Your task to perform on an android device: Search for pizza restaurants on Maps Image 0: 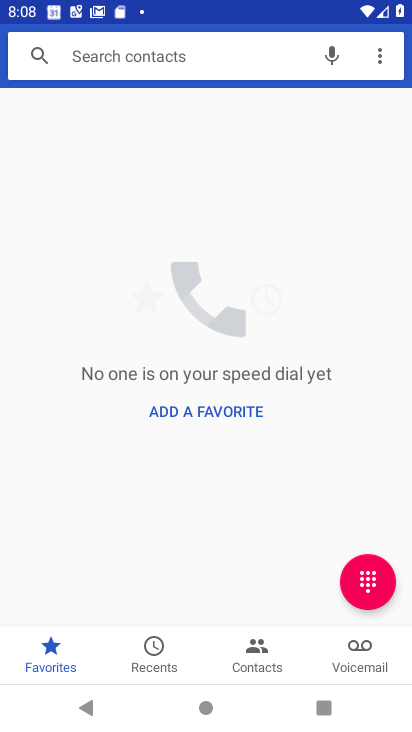
Step 0: drag from (205, 625) to (314, 18)
Your task to perform on an android device: Search for pizza restaurants on Maps Image 1: 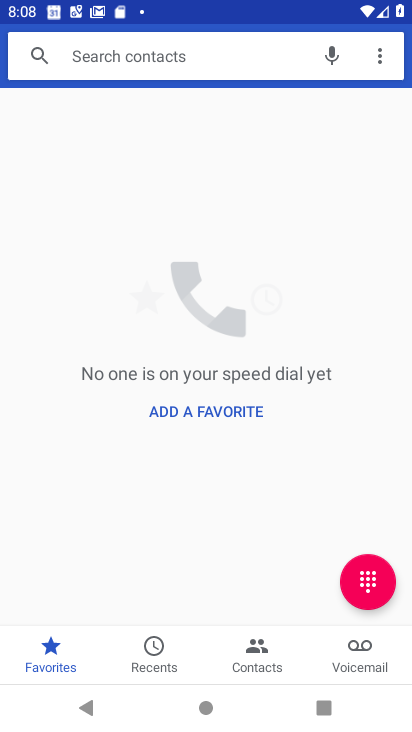
Step 1: press home button
Your task to perform on an android device: Search for pizza restaurants on Maps Image 2: 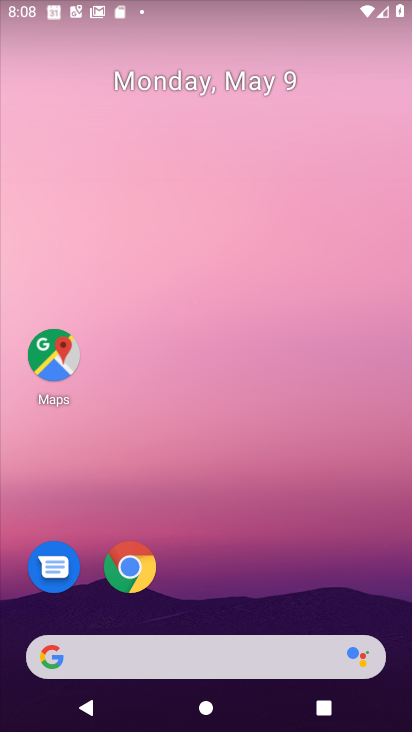
Step 2: drag from (226, 512) to (273, 167)
Your task to perform on an android device: Search for pizza restaurants on Maps Image 3: 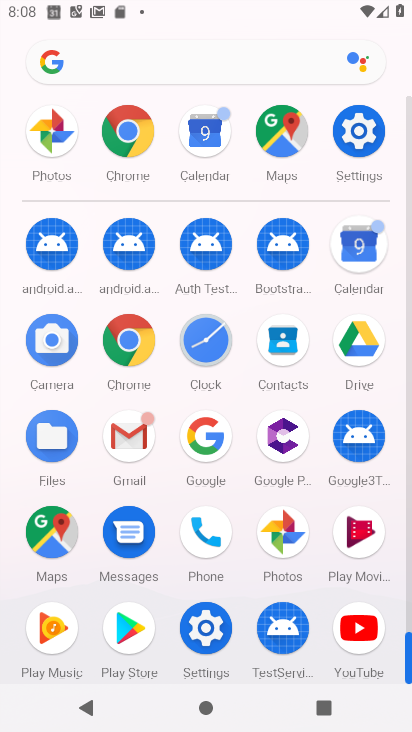
Step 3: click (279, 133)
Your task to perform on an android device: Search for pizza restaurants on Maps Image 4: 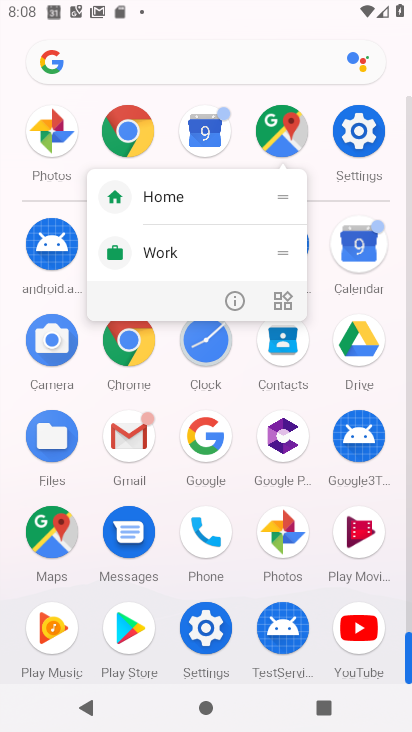
Step 4: click (243, 301)
Your task to perform on an android device: Search for pizza restaurants on Maps Image 5: 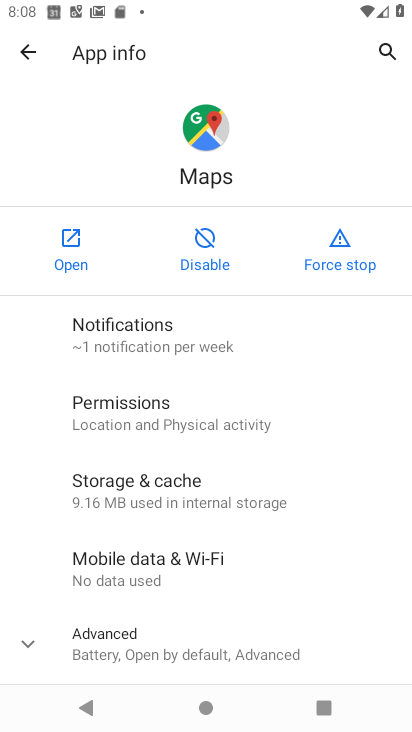
Step 5: click (61, 233)
Your task to perform on an android device: Search for pizza restaurants on Maps Image 6: 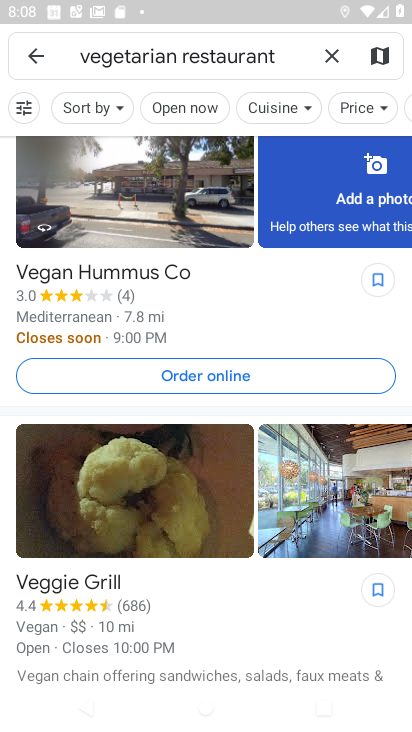
Step 6: click (330, 53)
Your task to perform on an android device: Search for pizza restaurants on Maps Image 7: 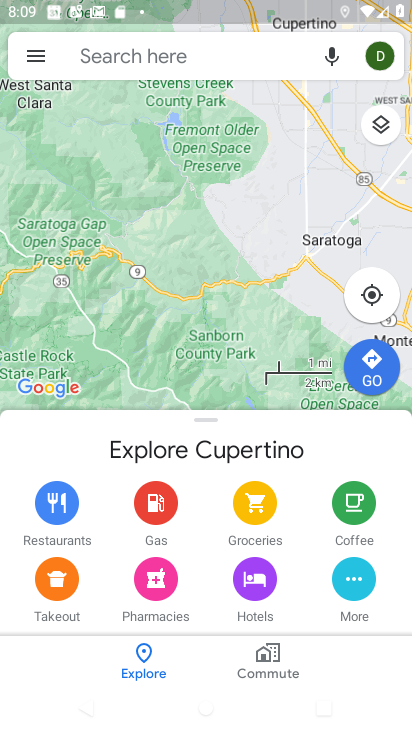
Step 7: click (155, 67)
Your task to perform on an android device: Search for pizza restaurants on Maps Image 8: 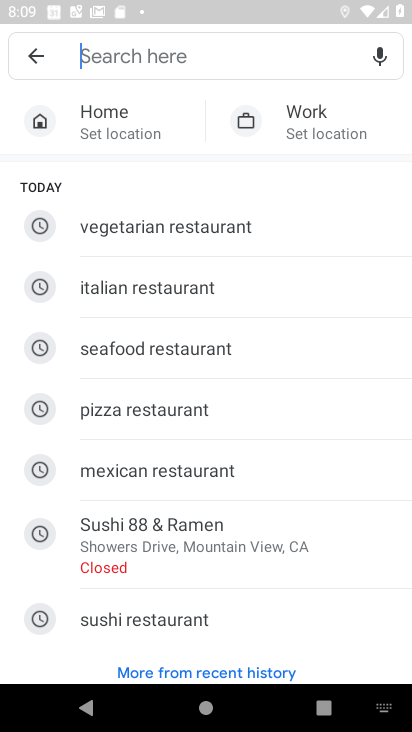
Step 8: click (157, 404)
Your task to perform on an android device: Search for pizza restaurants on Maps Image 9: 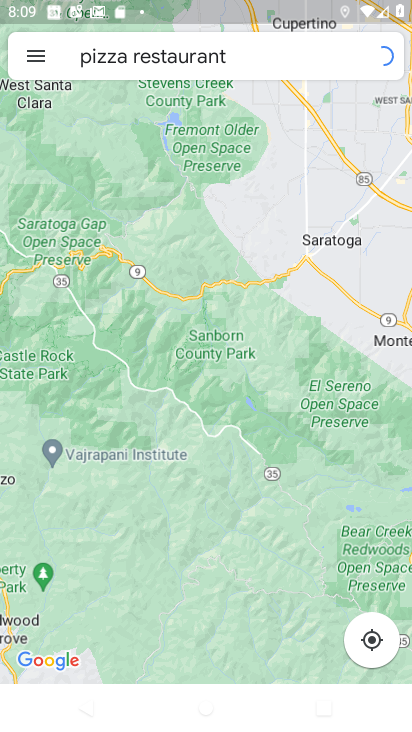
Step 9: task complete